Your task to perform on an android device: change the clock display to analog Image 0: 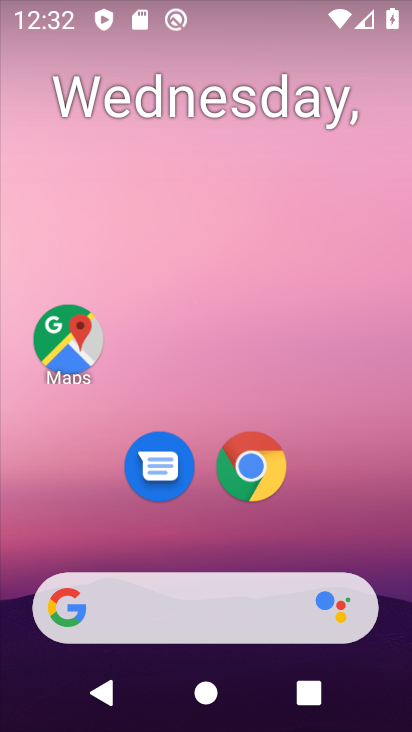
Step 0: drag from (344, 537) to (245, 153)
Your task to perform on an android device: change the clock display to analog Image 1: 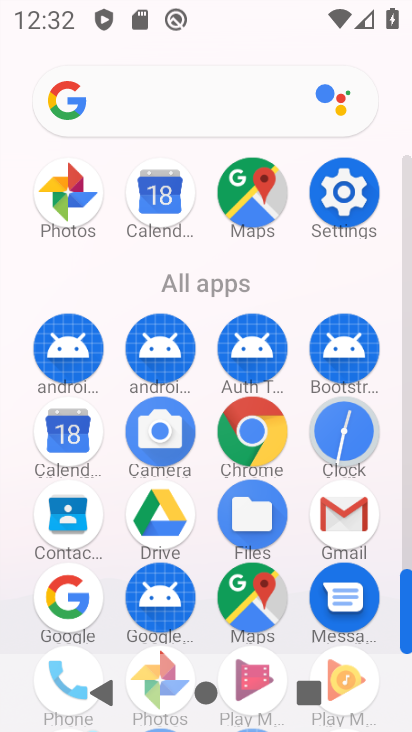
Step 1: click (343, 431)
Your task to perform on an android device: change the clock display to analog Image 2: 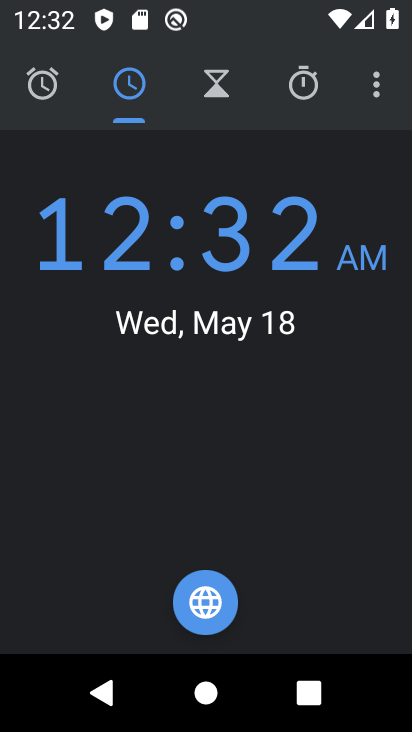
Step 2: click (377, 86)
Your task to perform on an android device: change the clock display to analog Image 3: 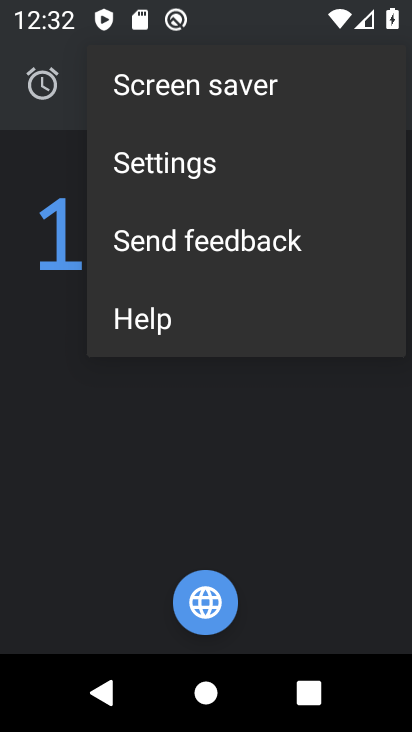
Step 3: click (168, 162)
Your task to perform on an android device: change the clock display to analog Image 4: 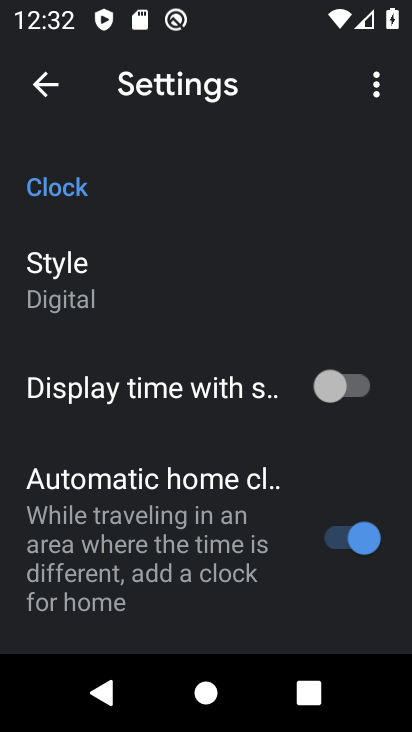
Step 4: click (46, 305)
Your task to perform on an android device: change the clock display to analog Image 5: 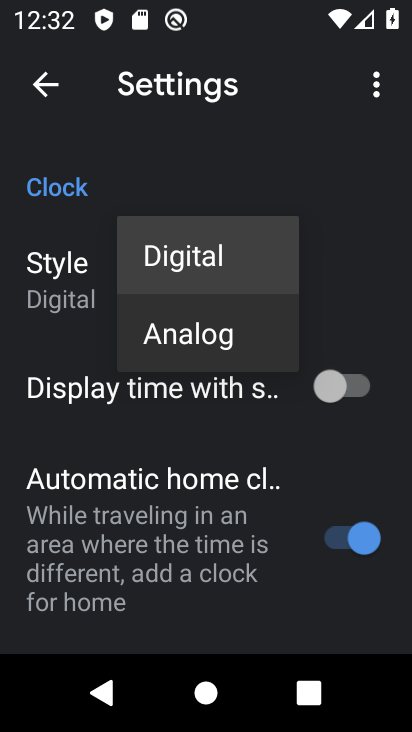
Step 5: click (165, 330)
Your task to perform on an android device: change the clock display to analog Image 6: 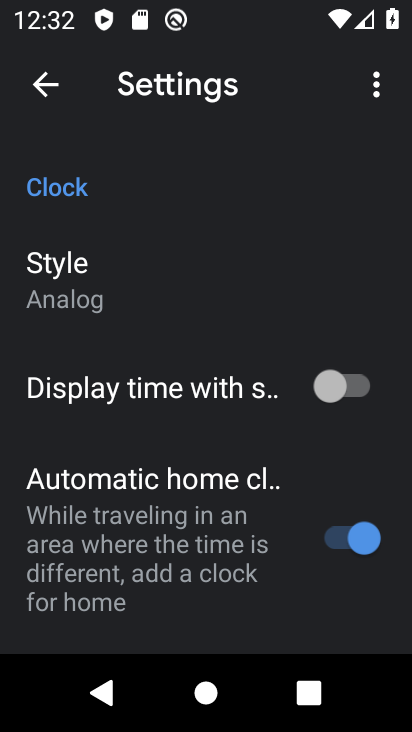
Step 6: task complete